Your task to perform on an android device: change the clock display to analog Image 0: 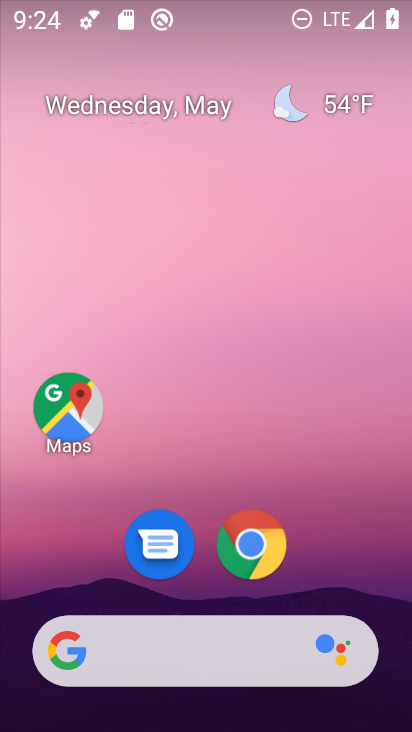
Step 0: drag from (206, 602) to (202, 122)
Your task to perform on an android device: change the clock display to analog Image 1: 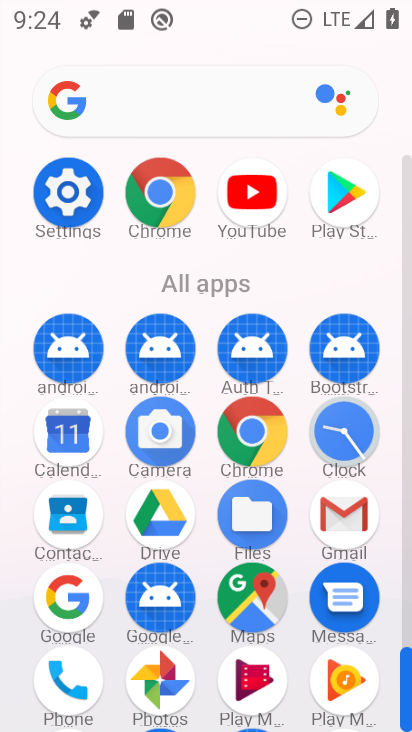
Step 1: click (348, 411)
Your task to perform on an android device: change the clock display to analog Image 2: 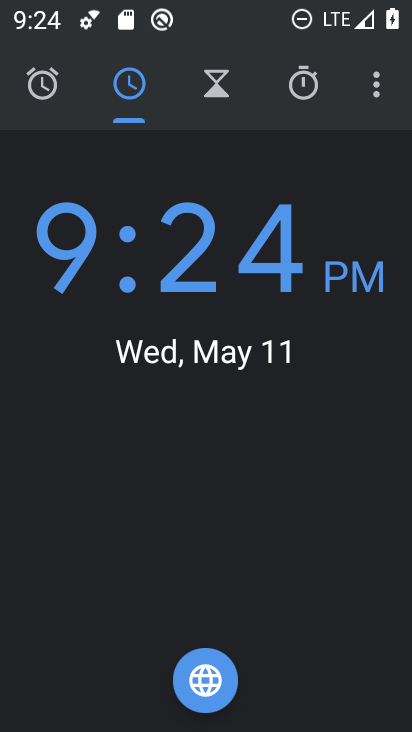
Step 2: click (389, 82)
Your task to perform on an android device: change the clock display to analog Image 3: 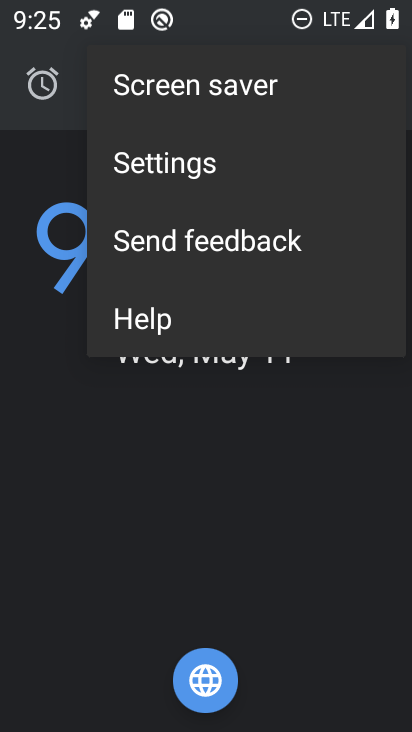
Step 3: click (239, 169)
Your task to perform on an android device: change the clock display to analog Image 4: 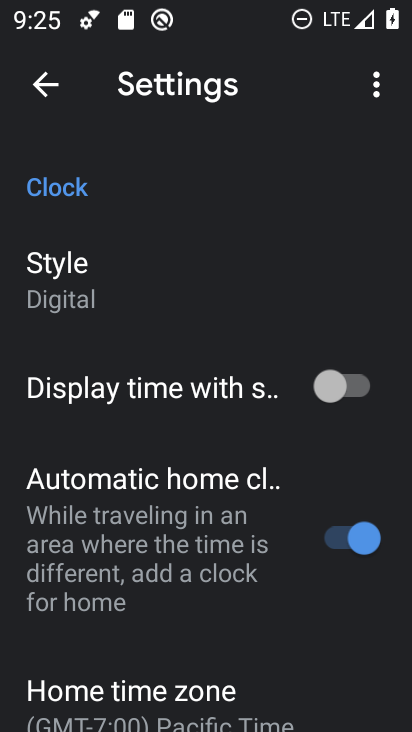
Step 4: click (144, 286)
Your task to perform on an android device: change the clock display to analog Image 5: 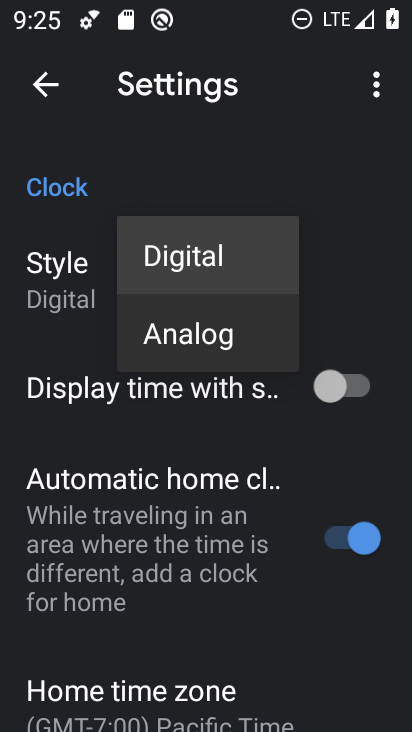
Step 5: click (144, 286)
Your task to perform on an android device: change the clock display to analog Image 6: 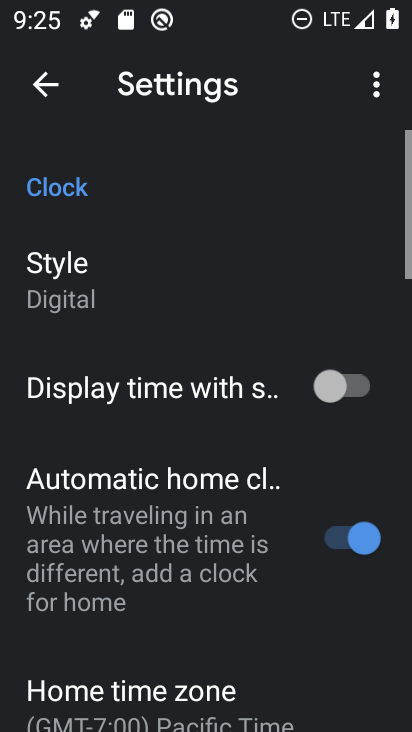
Step 6: click (128, 290)
Your task to perform on an android device: change the clock display to analog Image 7: 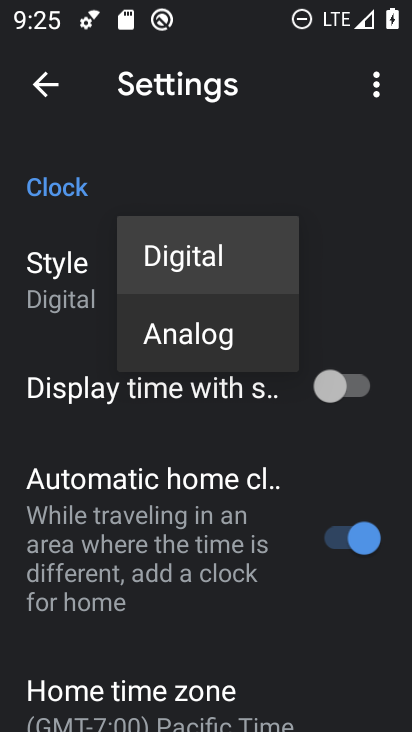
Step 7: click (204, 356)
Your task to perform on an android device: change the clock display to analog Image 8: 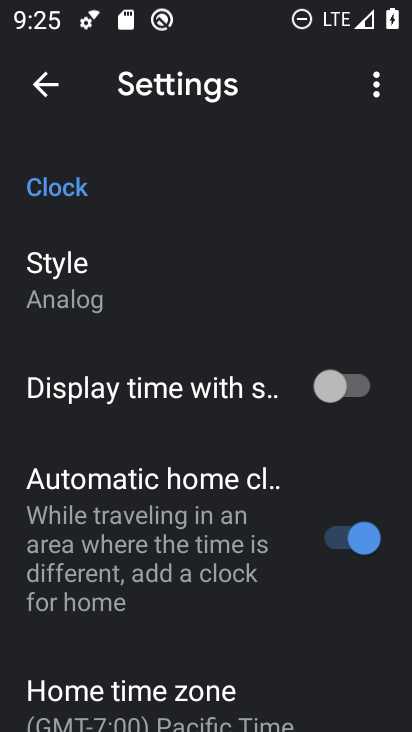
Step 8: task complete